Your task to perform on an android device: turn on data saver in the chrome app Image 0: 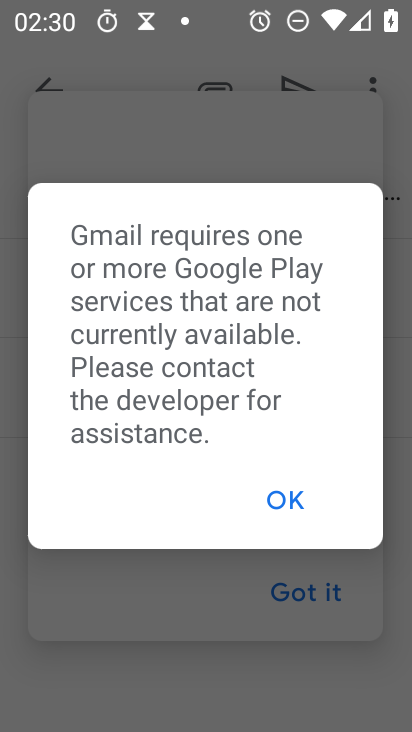
Step 0: press home button
Your task to perform on an android device: turn on data saver in the chrome app Image 1: 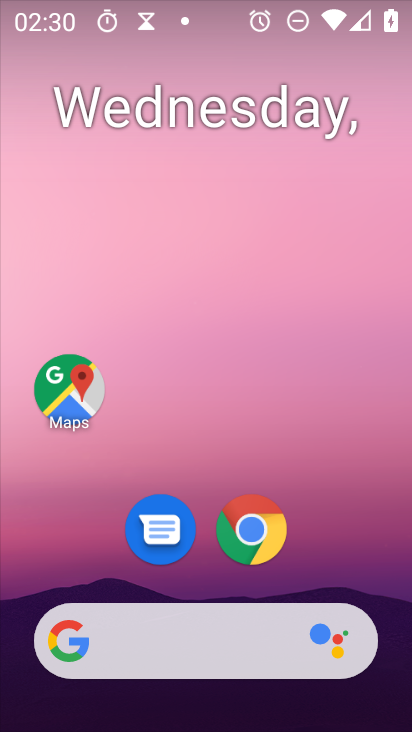
Step 1: drag from (305, 693) to (299, 151)
Your task to perform on an android device: turn on data saver in the chrome app Image 2: 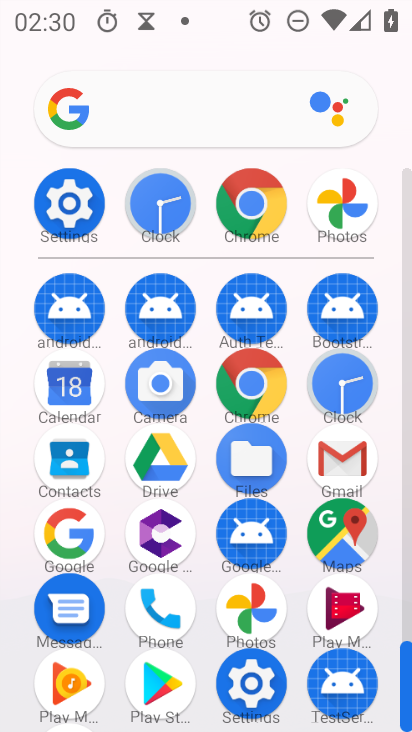
Step 2: click (83, 218)
Your task to perform on an android device: turn on data saver in the chrome app Image 3: 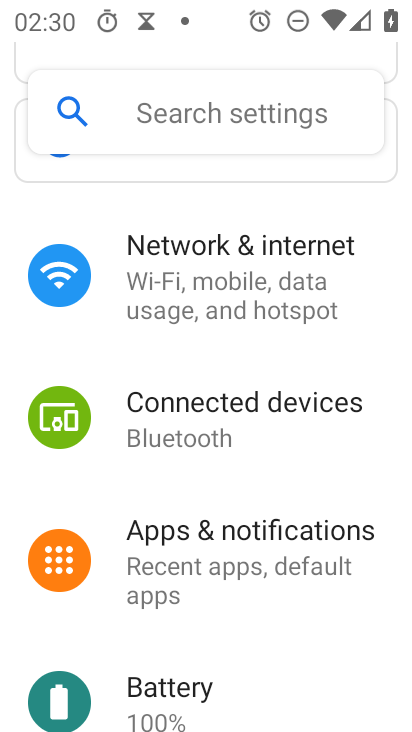
Step 3: press home button
Your task to perform on an android device: turn on data saver in the chrome app Image 4: 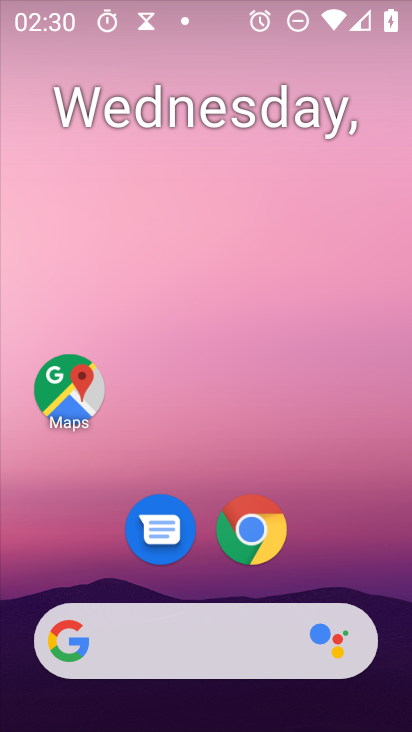
Step 4: drag from (336, 672) to (337, 22)
Your task to perform on an android device: turn on data saver in the chrome app Image 5: 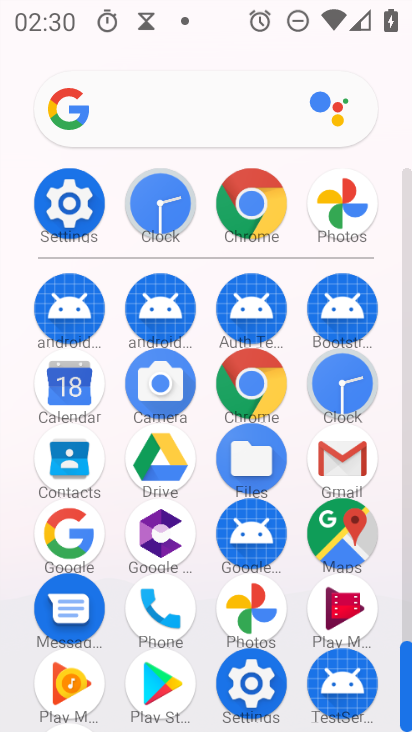
Step 5: click (256, 389)
Your task to perform on an android device: turn on data saver in the chrome app Image 6: 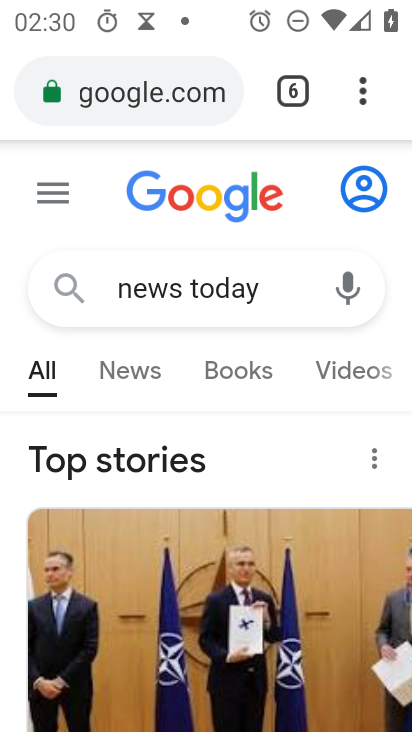
Step 6: drag from (361, 100) to (127, 554)
Your task to perform on an android device: turn on data saver in the chrome app Image 7: 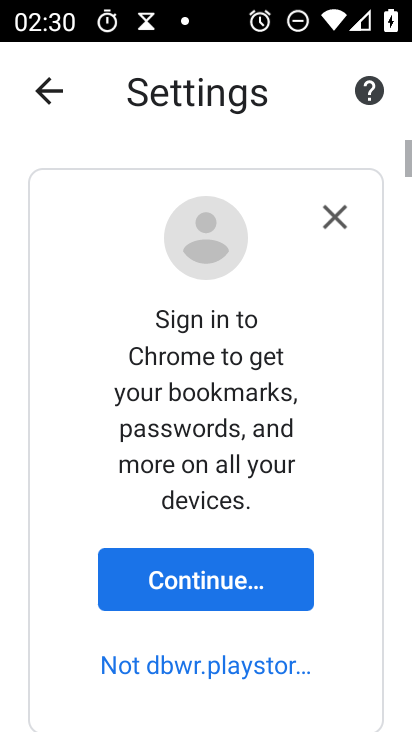
Step 7: drag from (257, 690) to (331, 68)
Your task to perform on an android device: turn on data saver in the chrome app Image 8: 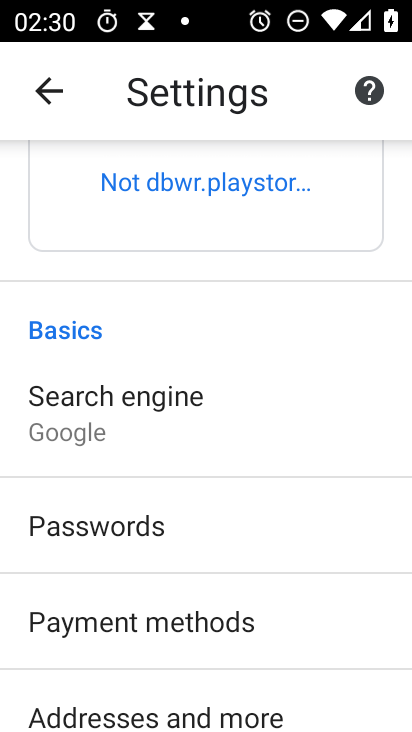
Step 8: drag from (267, 653) to (273, 109)
Your task to perform on an android device: turn on data saver in the chrome app Image 9: 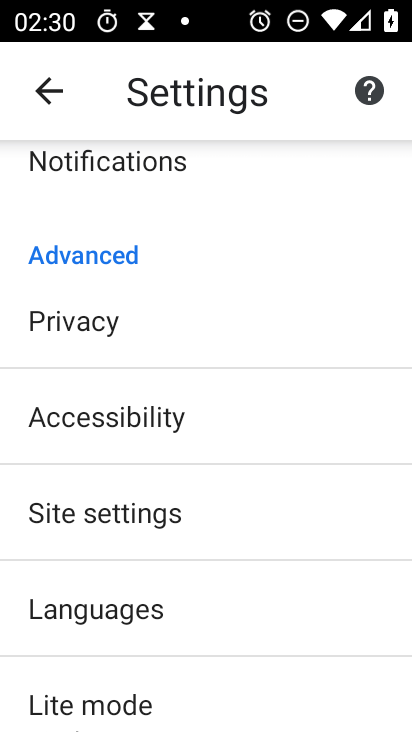
Step 9: click (128, 695)
Your task to perform on an android device: turn on data saver in the chrome app Image 10: 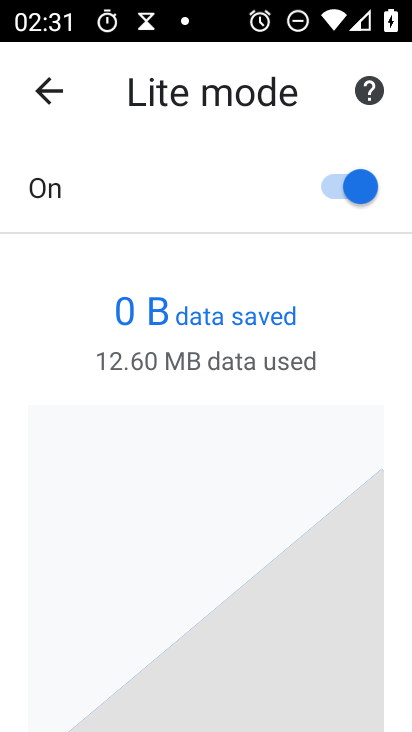
Step 10: task complete